Your task to perform on an android device: Open Yahoo.com Image 0: 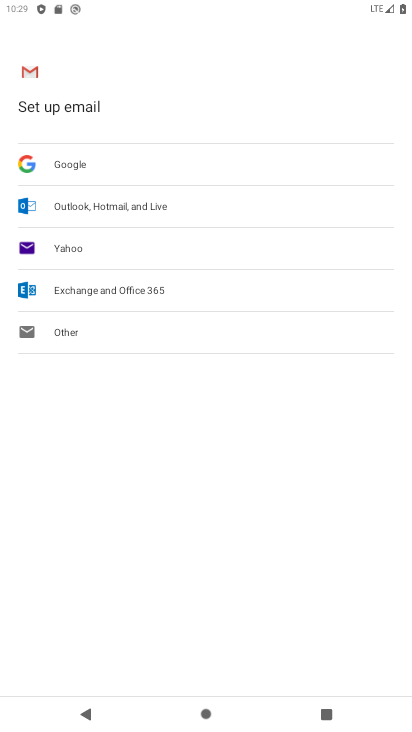
Step 0: press home button
Your task to perform on an android device: Open Yahoo.com Image 1: 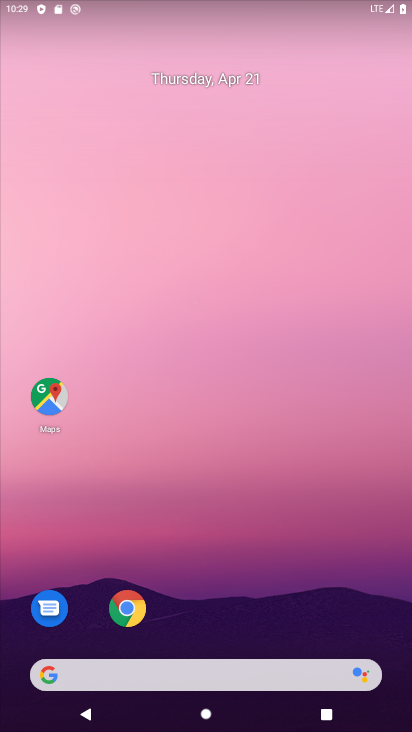
Step 1: click (116, 604)
Your task to perform on an android device: Open Yahoo.com Image 2: 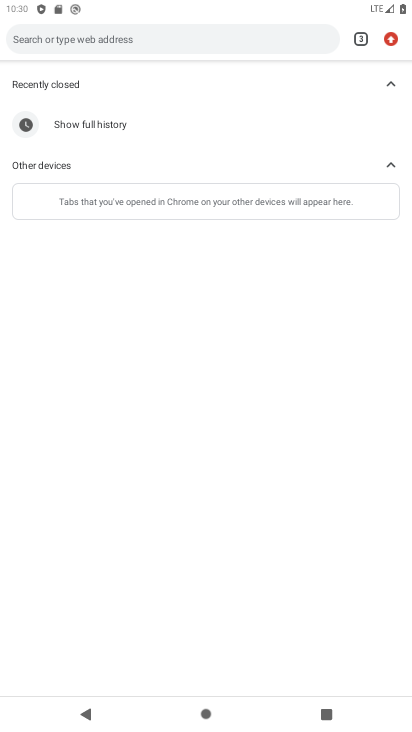
Step 2: click (355, 36)
Your task to perform on an android device: Open Yahoo.com Image 3: 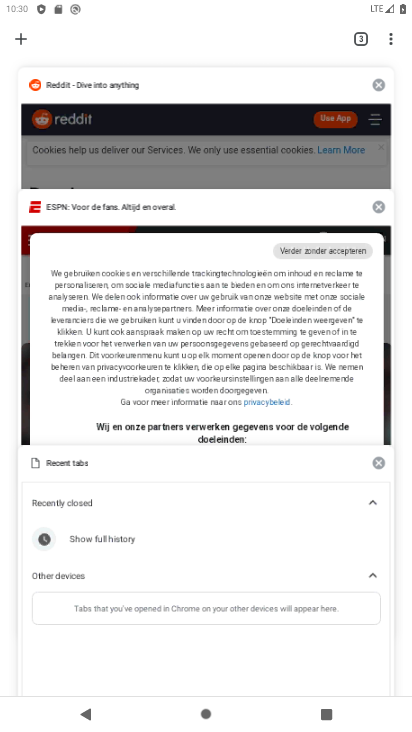
Step 3: click (22, 33)
Your task to perform on an android device: Open Yahoo.com Image 4: 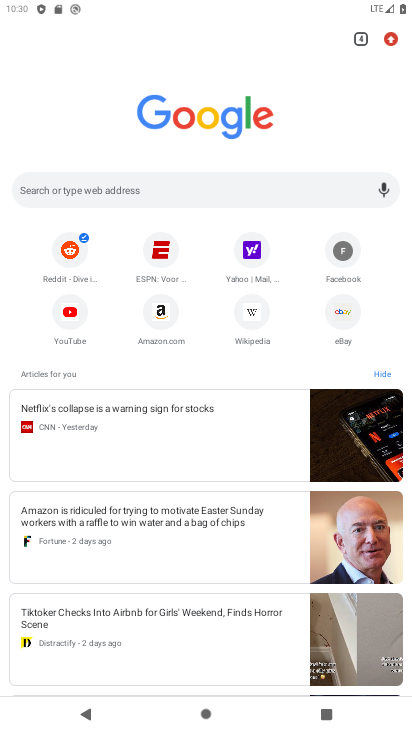
Step 4: click (252, 252)
Your task to perform on an android device: Open Yahoo.com Image 5: 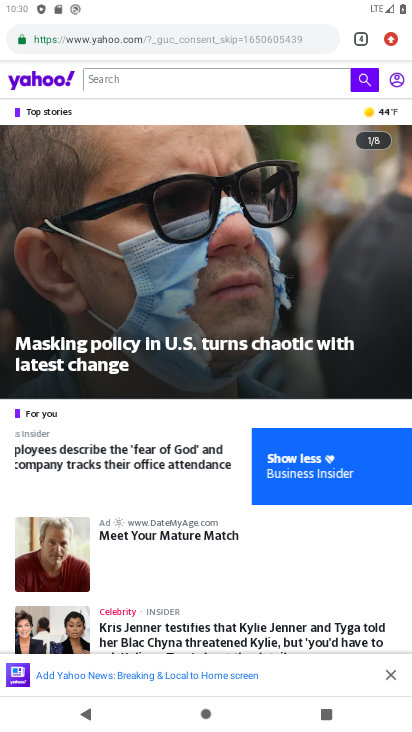
Step 5: task complete